Your task to perform on an android device: Open calendar and show me the fourth week of next month Image 0: 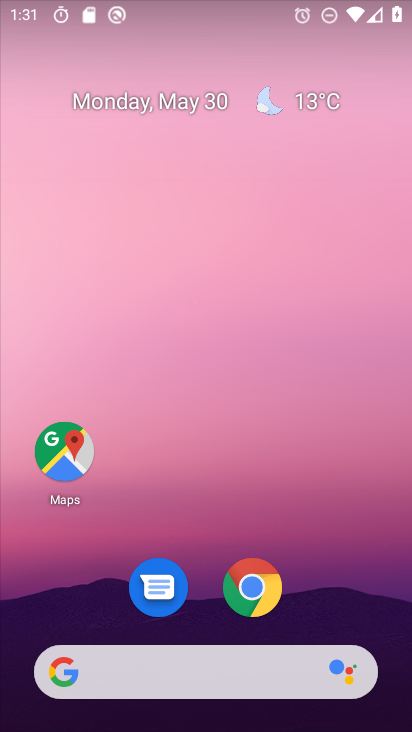
Step 0: drag from (314, 411) to (275, 20)
Your task to perform on an android device: Open calendar and show me the fourth week of next month Image 1: 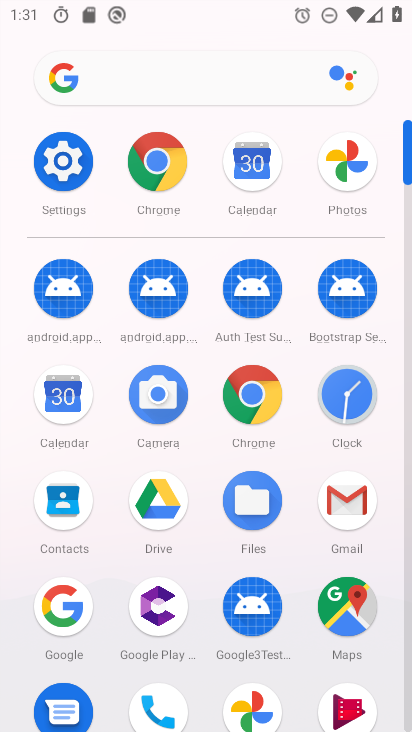
Step 1: click (66, 395)
Your task to perform on an android device: Open calendar and show me the fourth week of next month Image 2: 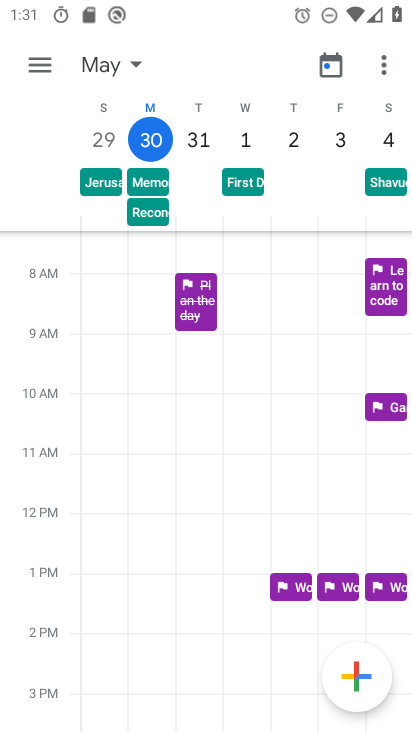
Step 2: click (123, 65)
Your task to perform on an android device: Open calendar and show me the fourth week of next month Image 3: 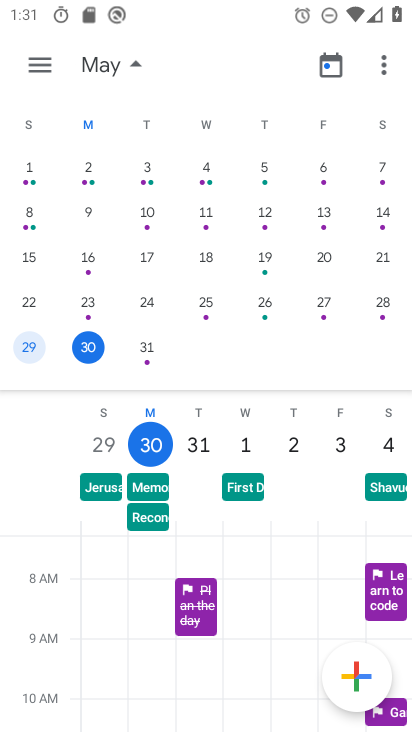
Step 3: drag from (331, 284) to (0, 261)
Your task to perform on an android device: Open calendar and show me the fourth week of next month Image 4: 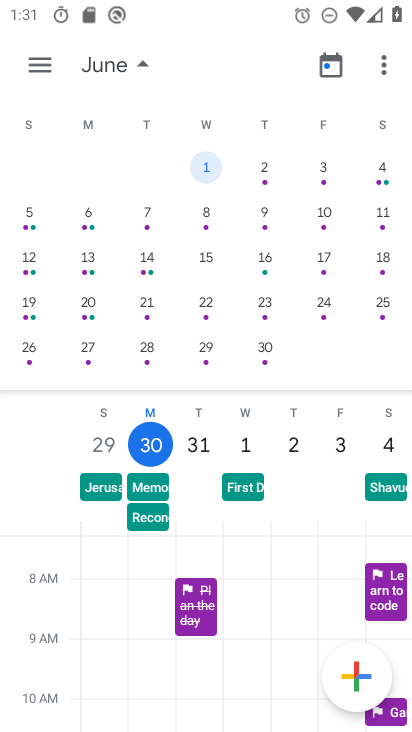
Step 4: drag from (380, 280) to (96, 290)
Your task to perform on an android device: Open calendar and show me the fourth week of next month Image 5: 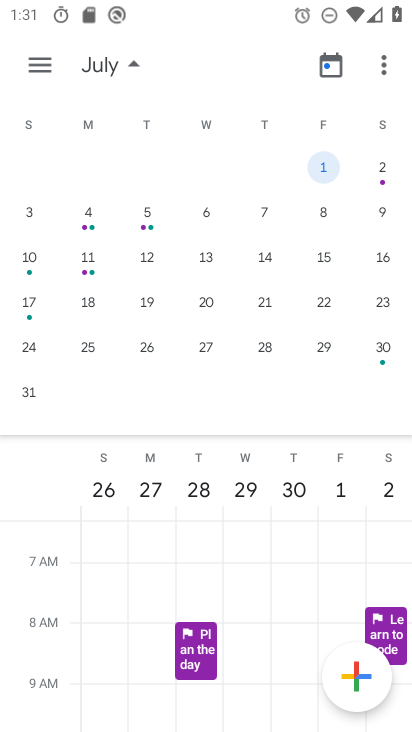
Step 5: click (28, 347)
Your task to perform on an android device: Open calendar and show me the fourth week of next month Image 6: 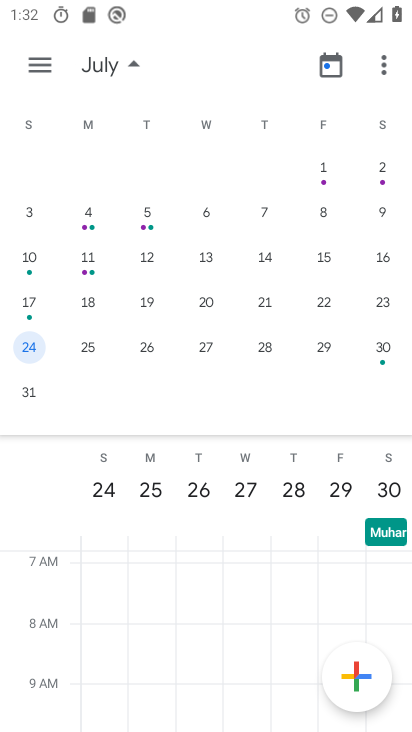
Step 6: task complete